Your task to perform on an android device: snooze an email in the gmail app Image 0: 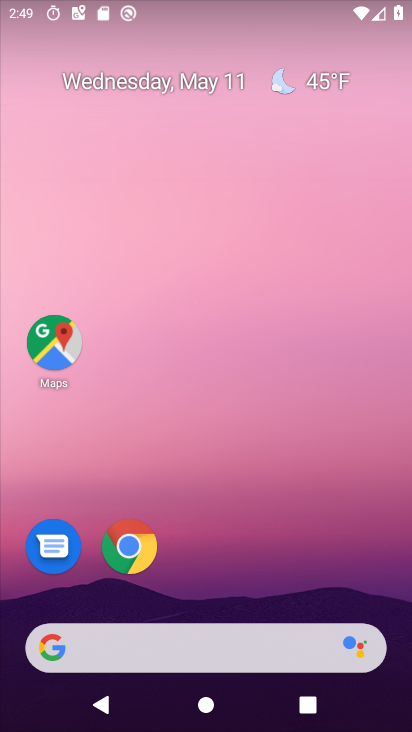
Step 0: drag from (261, 600) to (218, 14)
Your task to perform on an android device: snooze an email in the gmail app Image 1: 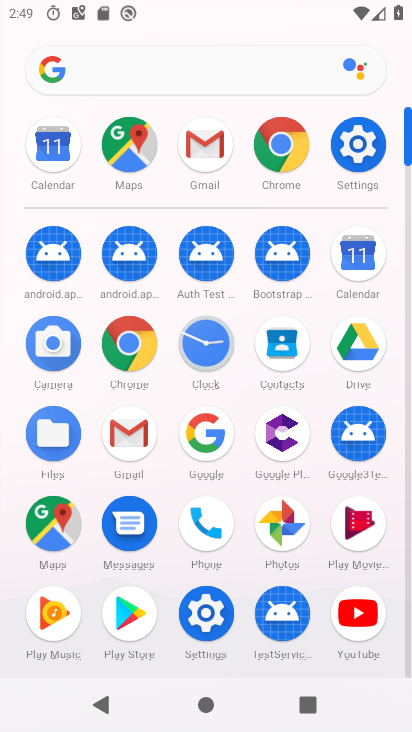
Step 1: click (121, 434)
Your task to perform on an android device: snooze an email in the gmail app Image 2: 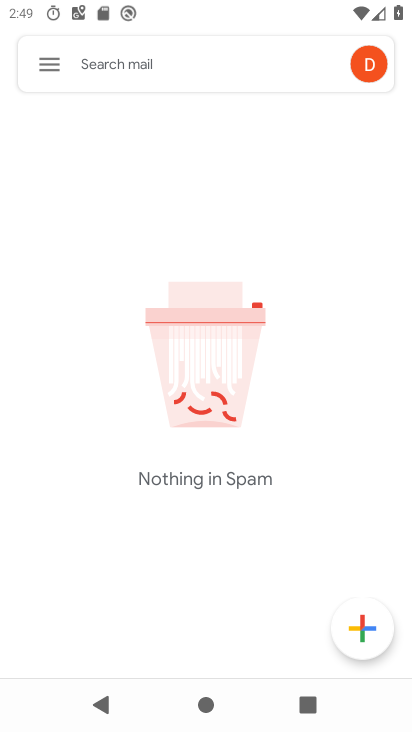
Step 2: click (50, 59)
Your task to perform on an android device: snooze an email in the gmail app Image 3: 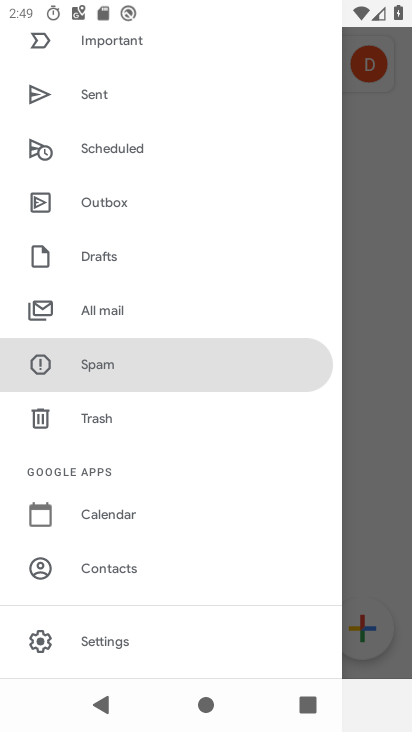
Step 3: click (115, 307)
Your task to perform on an android device: snooze an email in the gmail app Image 4: 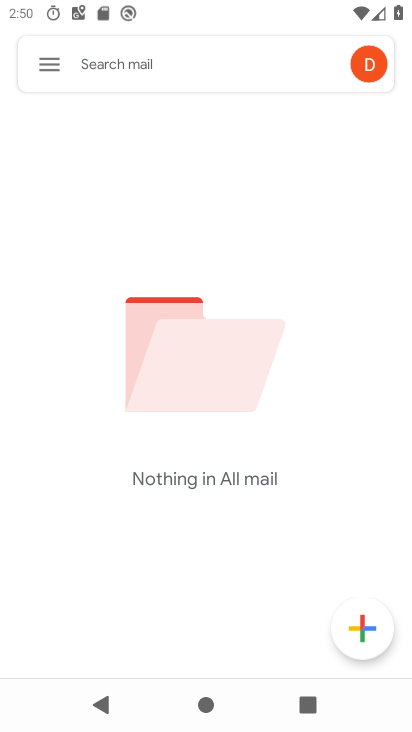
Step 4: click (50, 67)
Your task to perform on an android device: snooze an email in the gmail app Image 5: 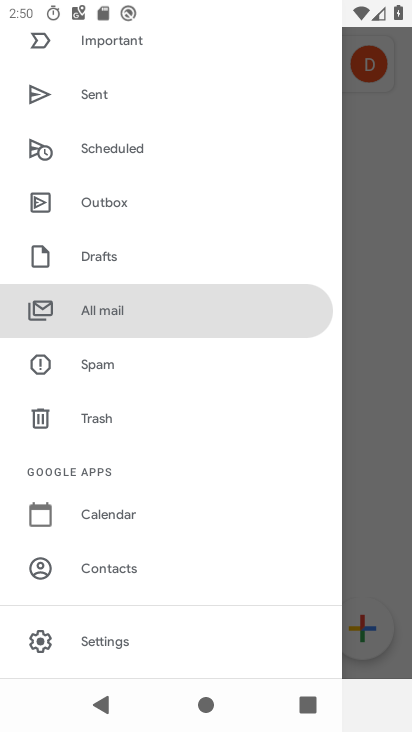
Step 5: task complete